Your task to perform on an android device: Show me the alarms in the clock app Image 0: 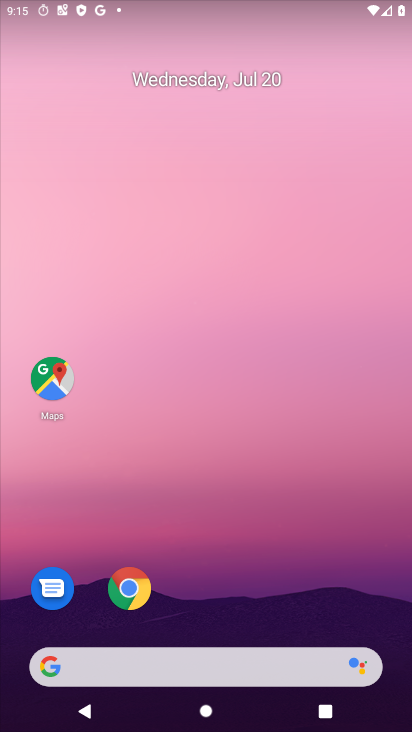
Step 0: drag from (297, 647) to (247, 44)
Your task to perform on an android device: Show me the alarms in the clock app Image 1: 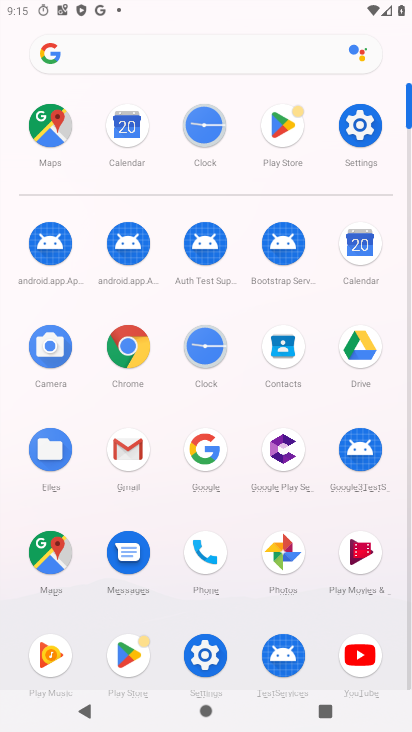
Step 1: click (197, 361)
Your task to perform on an android device: Show me the alarms in the clock app Image 2: 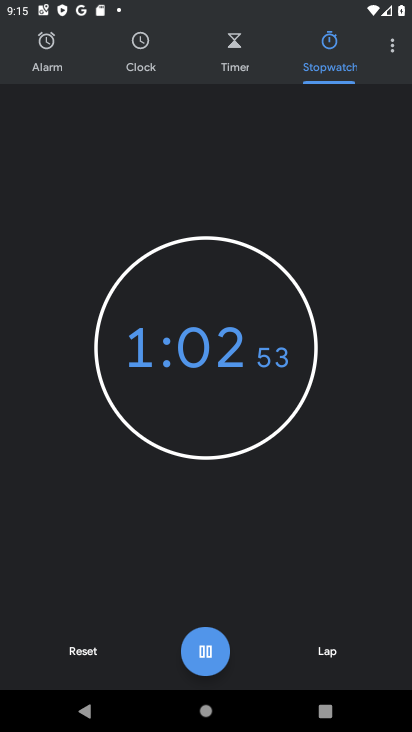
Step 2: click (42, 38)
Your task to perform on an android device: Show me the alarms in the clock app Image 3: 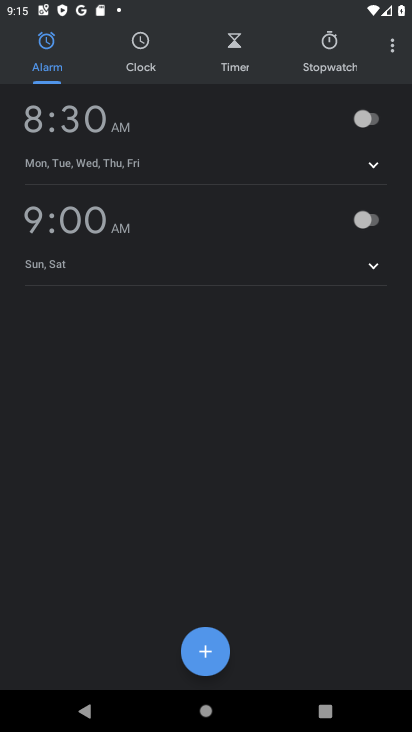
Step 3: task complete